Your task to perform on an android device: toggle notification dots Image 0: 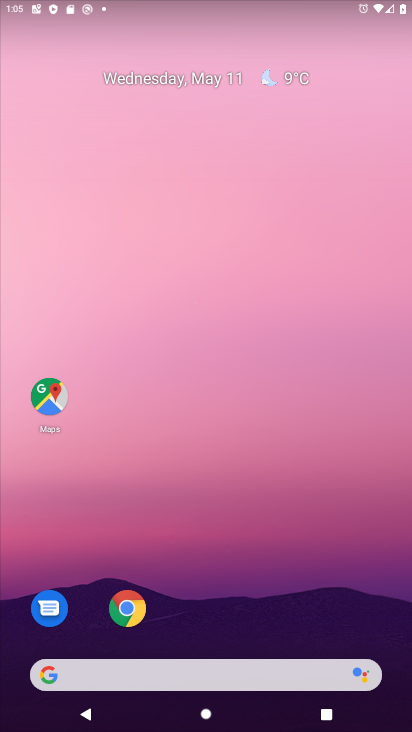
Step 0: drag from (255, 567) to (209, 107)
Your task to perform on an android device: toggle notification dots Image 1: 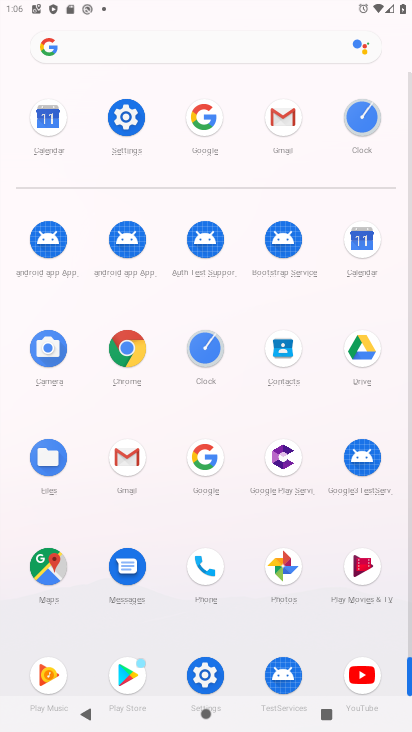
Step 1: click (131, 129)
Your task to perform on an android device: toggle notification dots Image 2: 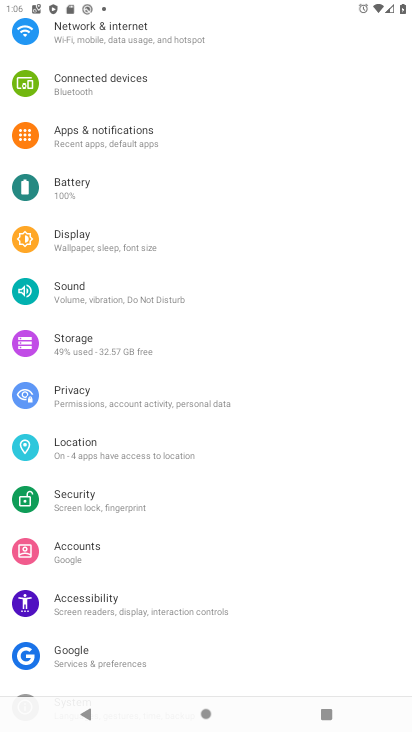
Step 2: click (131, 133)
Your task to perform on an android device: toggle notification dots Image 3: 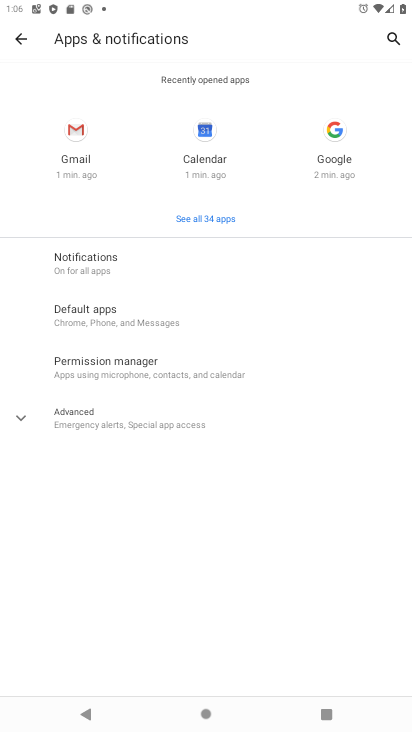
Step 3: click (120, 266)
Your task to perform on an android device: toggle notification dots Image 4: 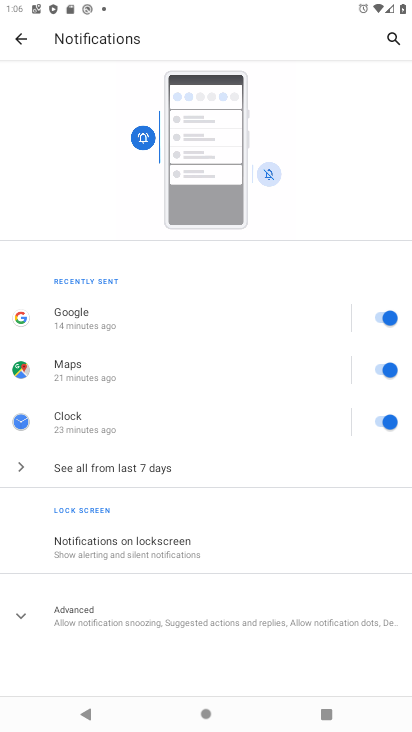
Step 4: click (132, 612)
Your task to perform on an android device: toggle notification dots Image 5: 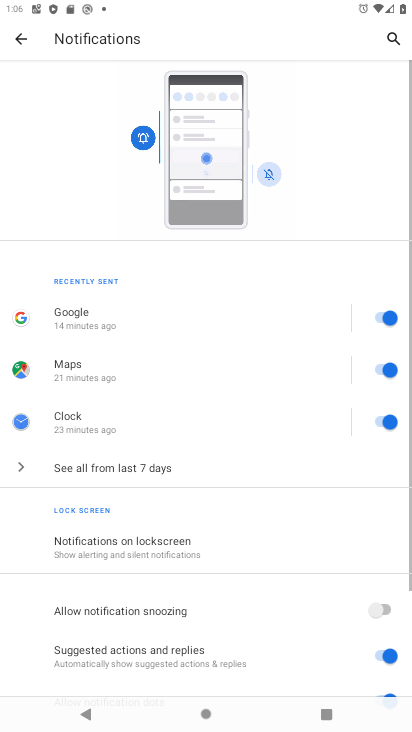
Step 5: drag from (132, 612) to (149, 242)
Your task to perform on an android device: toggle notification dots Image 6: 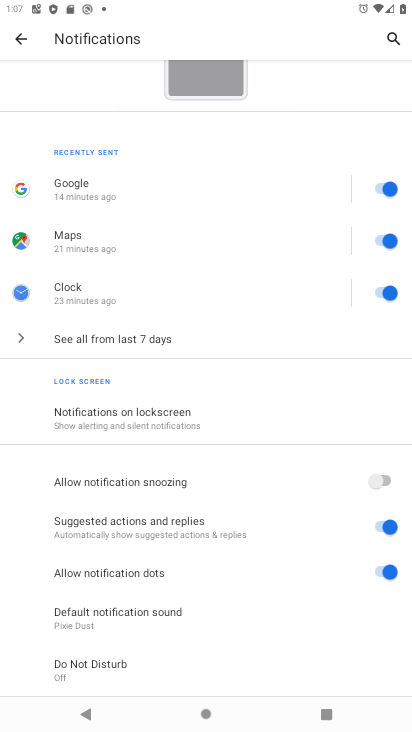
Step 6: click (378, 575)
Your task to perform on an android device: toggle notification dots Image 7: 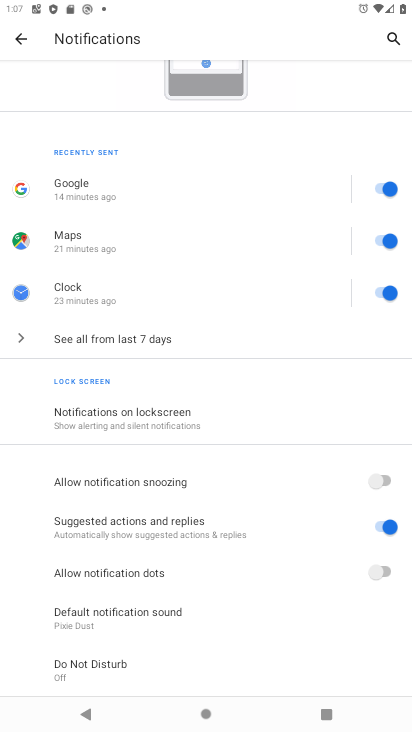
Step 7: task complete